Your task to perform on an android device: Go to Google Image 0: 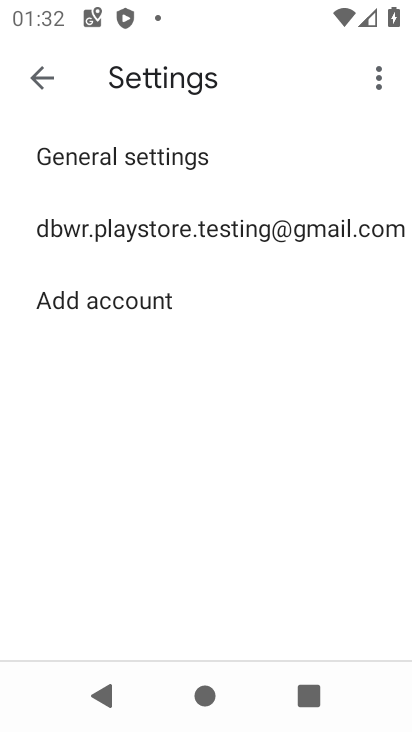
Step 0: press home button
Your task to perform on an android device: Go to Google Image 1: 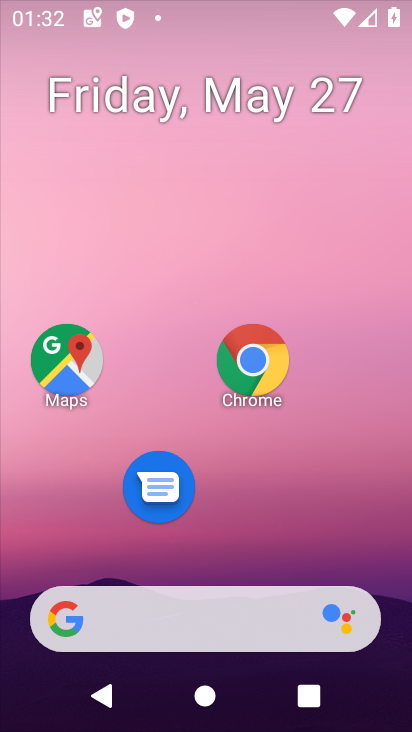
Step 1: drag from (241, 490) to (266, 72)
Your task to perform on an android device: Go to Google Image 2: 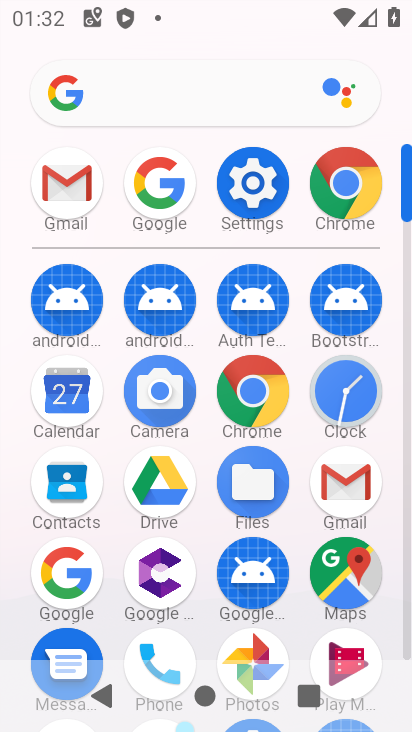
Step 2: click (168, 179)
Your task to perform on an android device: Go to Google Image 3: 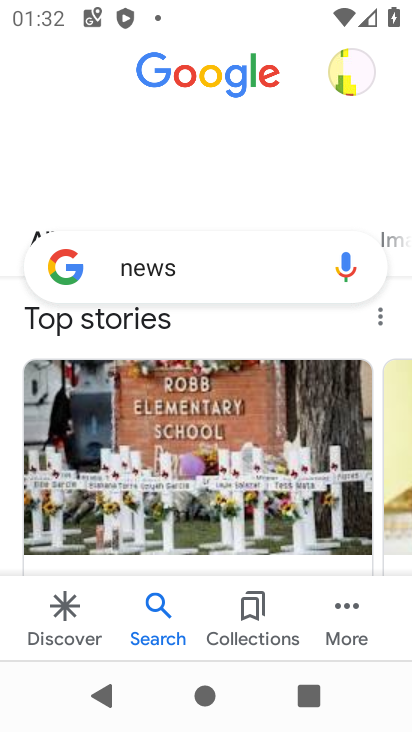
Step 3: task complete